Your task to perform on an android device: Open Google Chrome and open the bookmarks view Image 0: 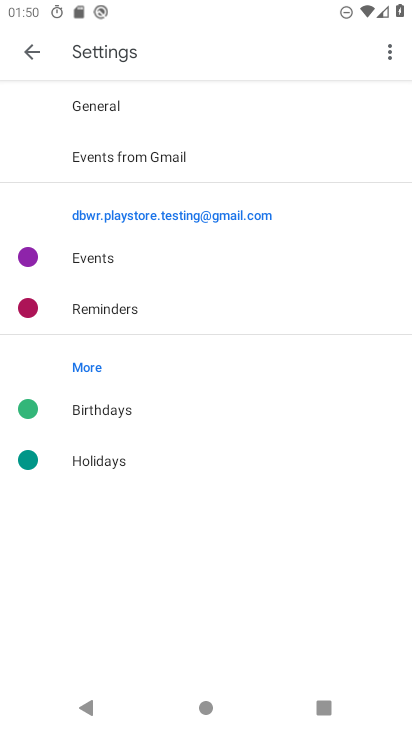
Step 0: press home button
Your task to perform on an android device: Open Google Chrome and open the bookmarks view Image 1: 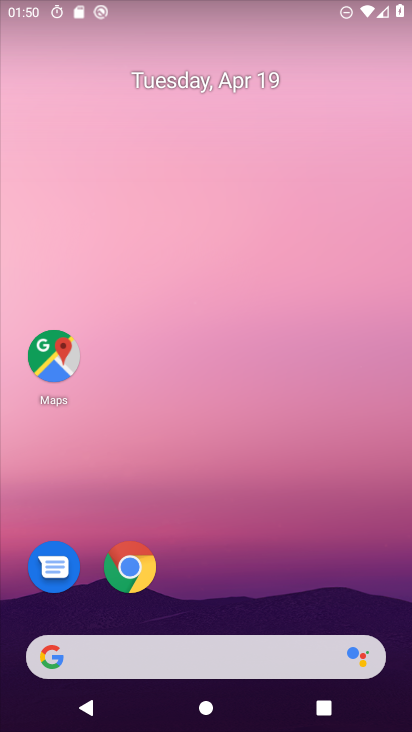
Step 1: drag from (248, 562) to (212, 116)
Your task to perform on an android device: Open Google Chrome and open the bookmarks view Image 2: 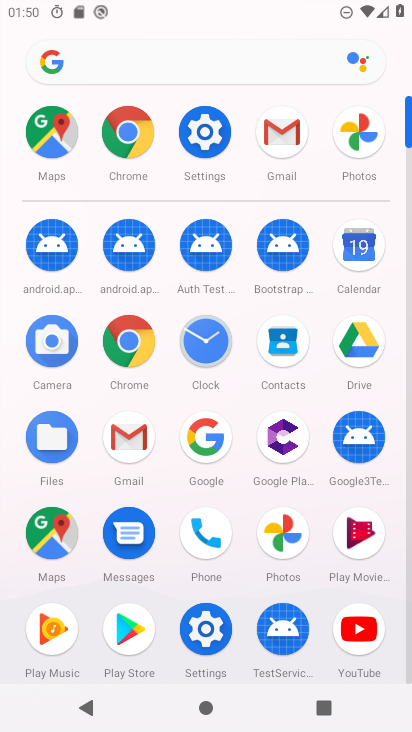
Step 2: click (134, 352)
Your task to perform on an android device: Open Google Chrome and open the bookmarks view Image 3: 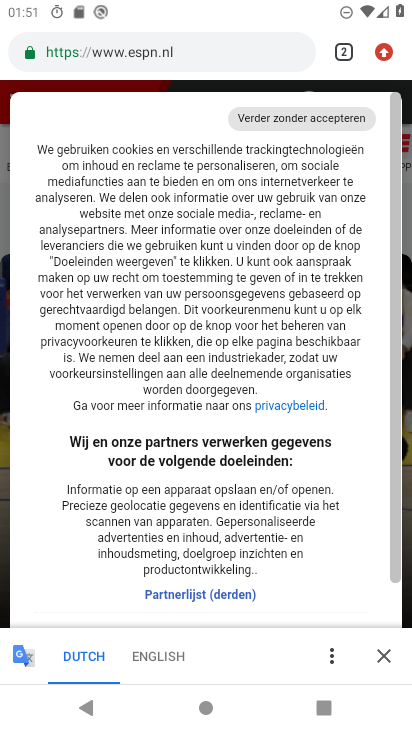
Step 3: click (393, 50)
Your task to perform on an android device: Open Google Chrome and open the bookmarks view Image 4: 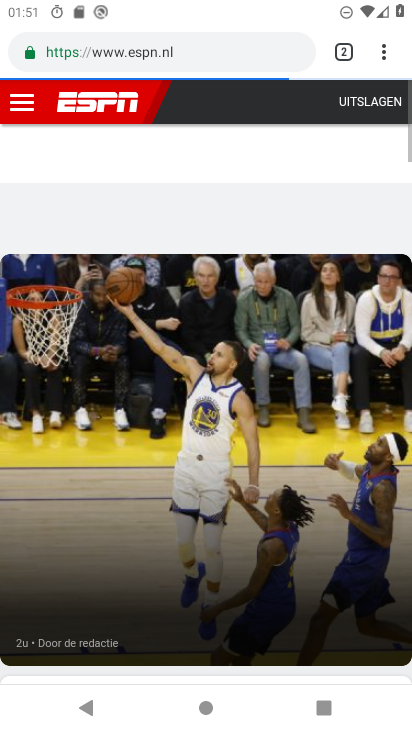
Step 4: task complete